Your task to perform on an android device: open a new tab in the chrome app Image 0: 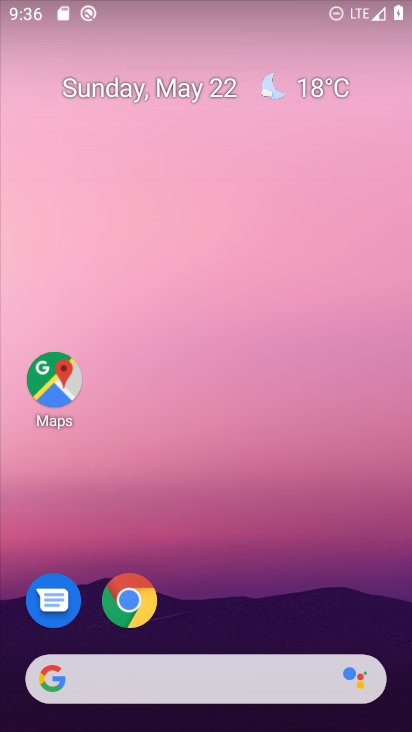
Step 0: drag from (398, 659) to (251, 18)
Your task to perform on an android device: open a new tab in the chrome app Image 1: 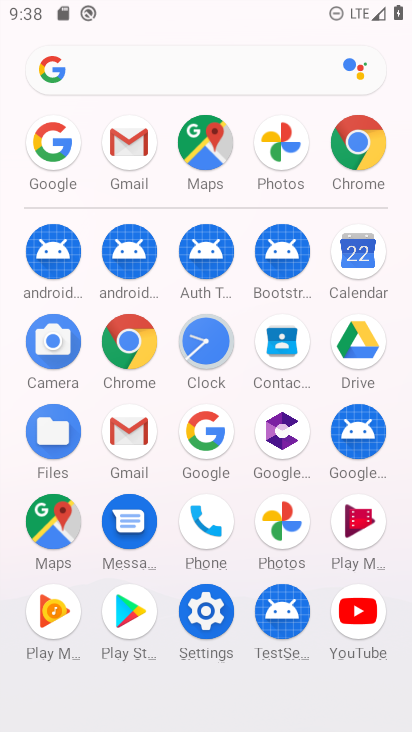
Step 1: click (134, 349)
Your task to perform on an android device: open a new tab in the chrome app Image 2: 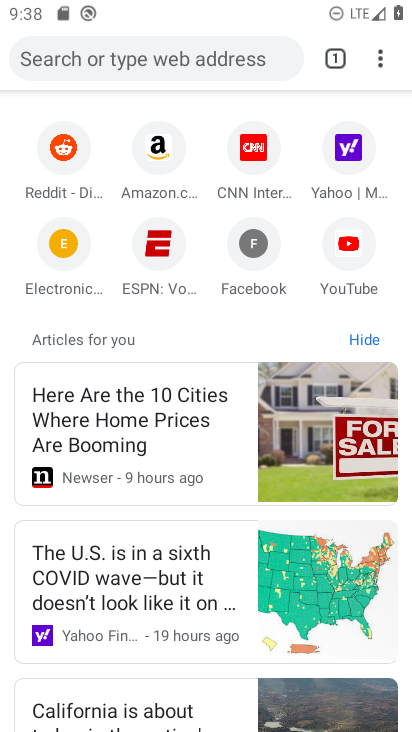
Step 2: click (380, 59)
Your task to perform on an android device: open a new tab in the chrome app Image 3: 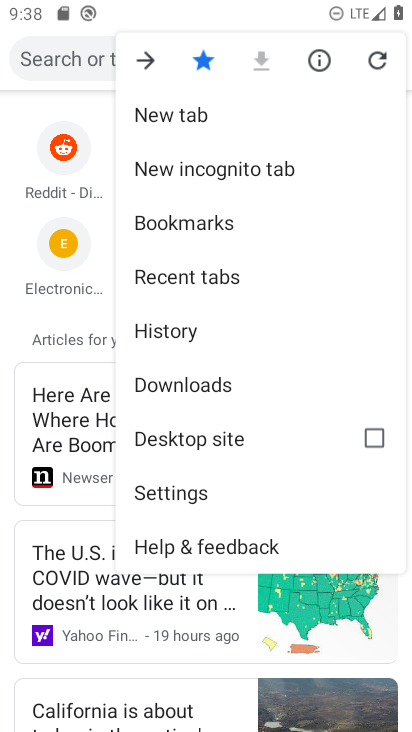
Step 3: click (221, 117)
Your task to perform on an android device: open a new tab in the chrome app Image 4: 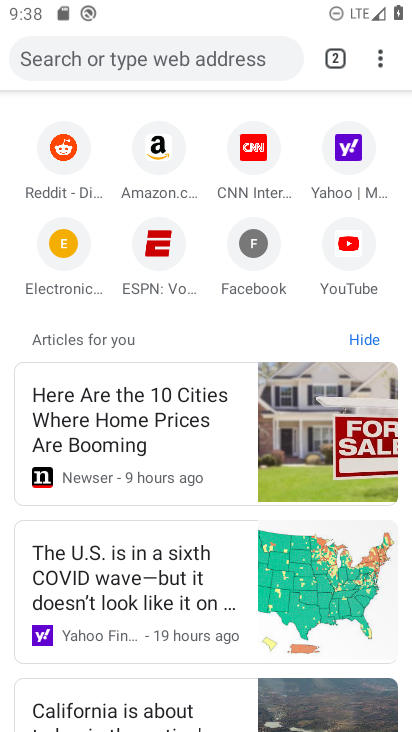
Step 4: task complete